Your task to perform on an android device: open app "eBay: The shopping marketplace" Image 0: 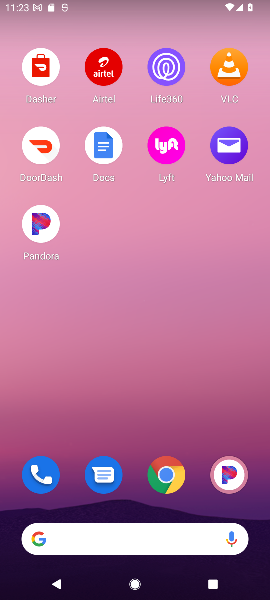
Step 0: drag from (126, 497) to (126, 48)
Your task to perform on an android device: open app "eBay: The shopping marketplace" Image 1: 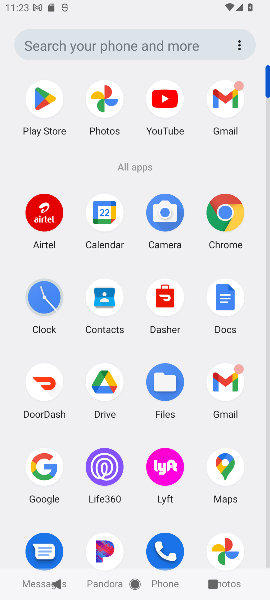
Step 1: click (39, 99)
Your task to perform on an android device: open app "eBay: The shopping marketplace" Image 2: 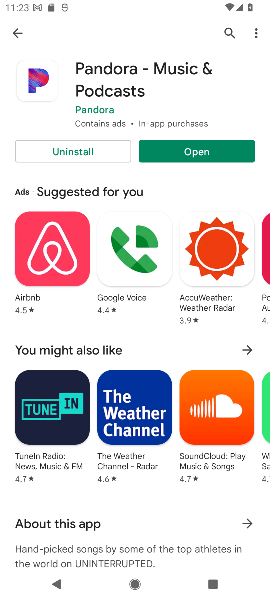
Step 2: click (15, 35)
Your task to perform on an android device: open app "eBay: The shopping marketplace" Image 3: 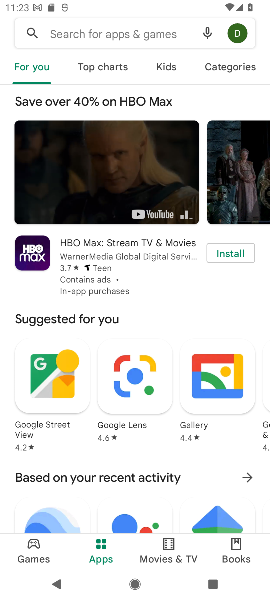
Step 3: click (122, 34)
Your task to perform on an android device: open app "eBay: The shopping marketplace" Image 4: 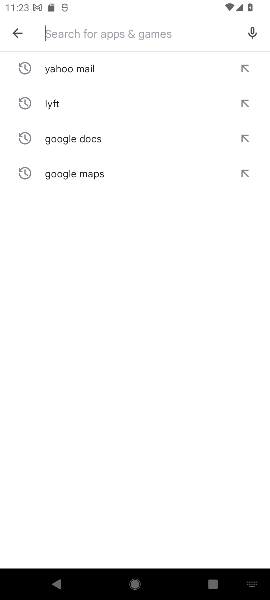
Step 4: type "eBay"
Your task to perform on an android device: open app "eBay: The shopping marketplace" Image 5: 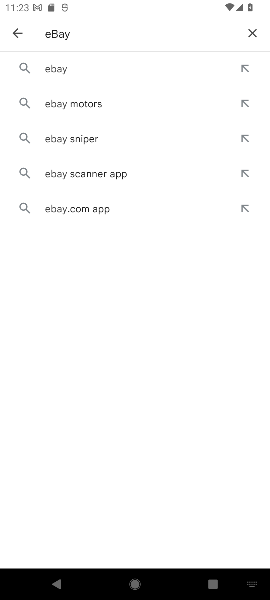
Step 5: click (48, 68)
Your task to perform on an android device: open app "eBay: The shopping marketplace" Image 6: 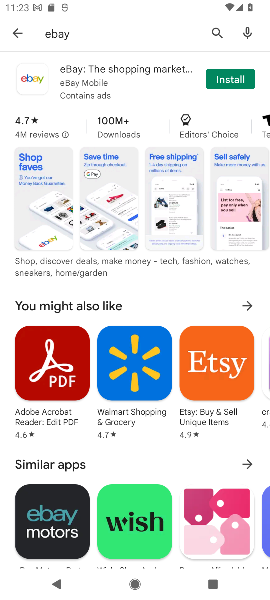
Step 6: click (227, 75)
Your task to perform on an android device: open app "eBay: The shopping marketplace" Image 7: 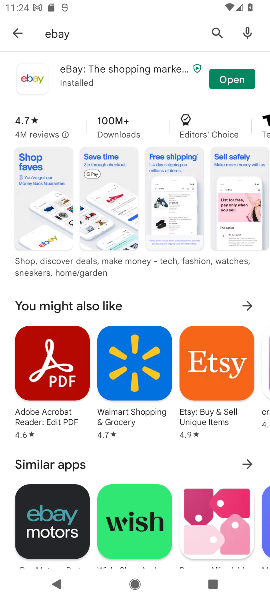
Step 7: click (217, 79)
Your task to perform on an android device: open app "eBay: The shopping marketplace" Image 8: 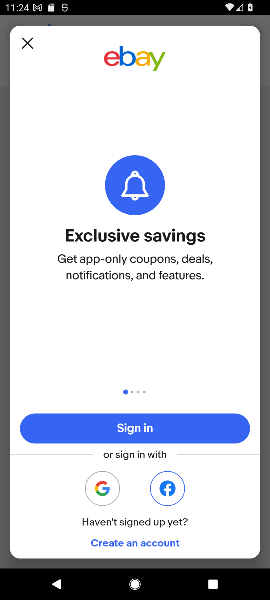
Step 8: task complete